Your task to perform on an android device: Go to Maps Image 0: 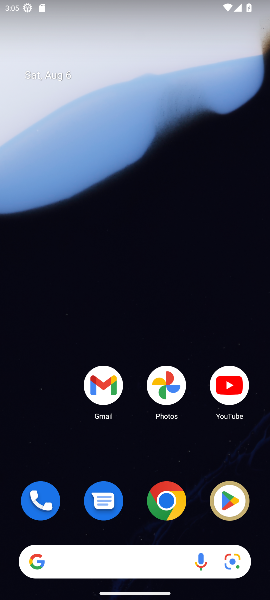
Step 0: drag from (221, 580) to (216, 133)
Your task to perform on an android device: Go to Maps Image 1: 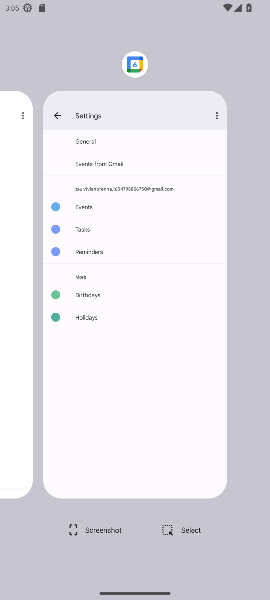
Step 1: drag from (39, 546) to (248, 335)
Your task to perform on an android device: Go to Maps Image 2: 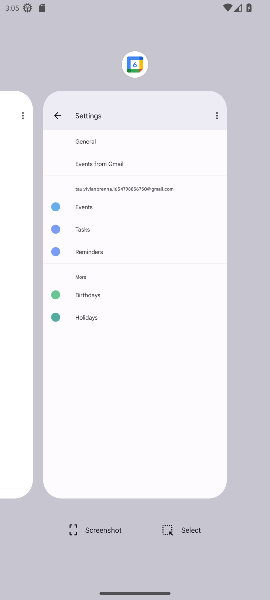
Step 2: press home button
Your task to perform on an android device: Go to Maps Image 3: 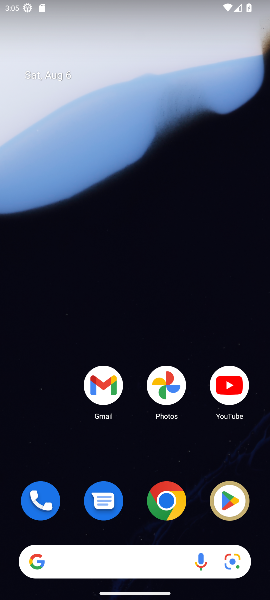
Step 3: drag from (8, 577) to (224, 181)
Your task to perform on an android device: Go to Maps Image 4: 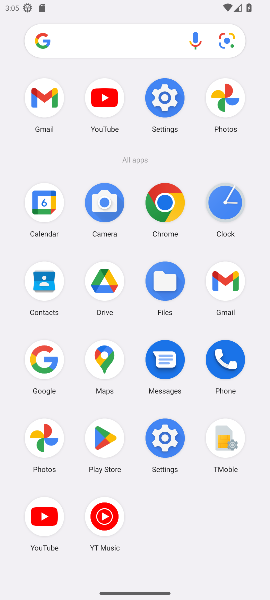
Step 4: click (97, 354)
Your task to perform on an android device: Go to Maps Image 5: 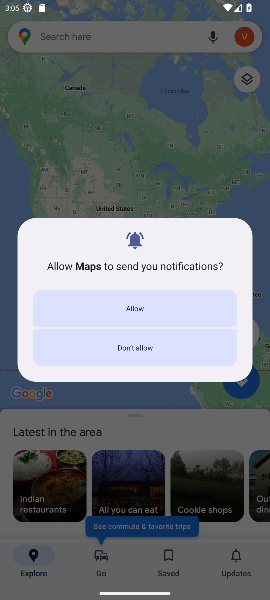
Step 5: click (155, 302)
Your task to perform on an android device: Go to Maps Image 6: 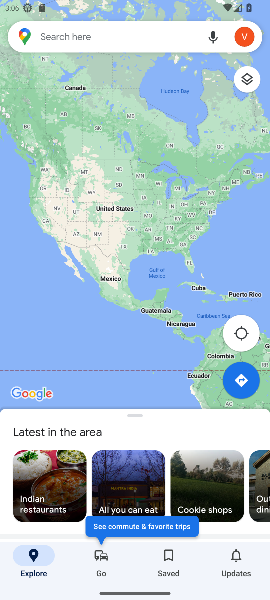
Step 6: task complete